Your task to perform on an android device: check battery use Image 0: 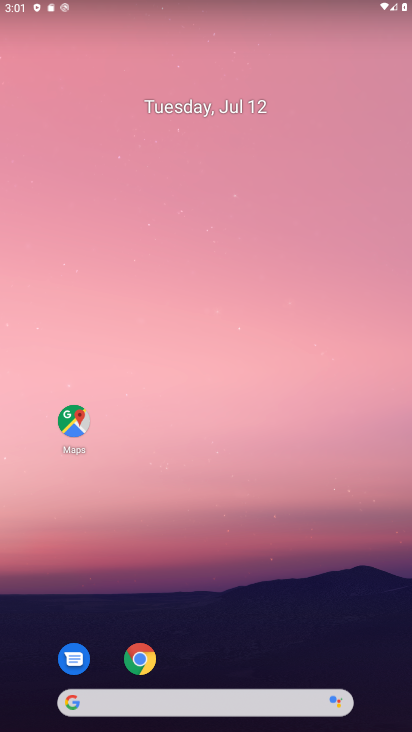
Step 0: drag from (192, 553) to (138, 135)
Your task to perform on an android device: check battery use Image 1: 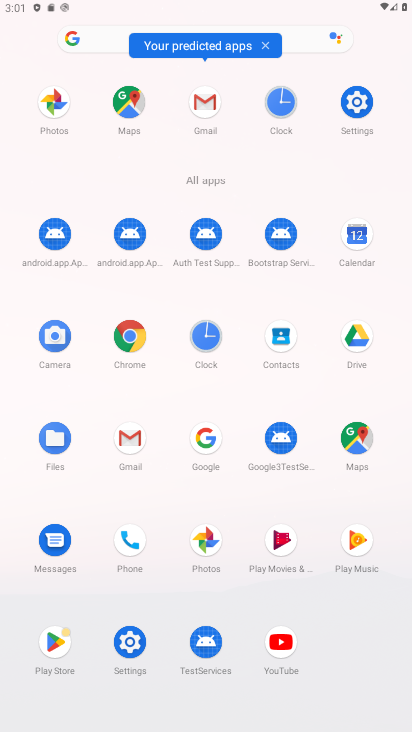
Step 1: click (357, 110)
Your task to perform on an android device: check battery use Image 2: 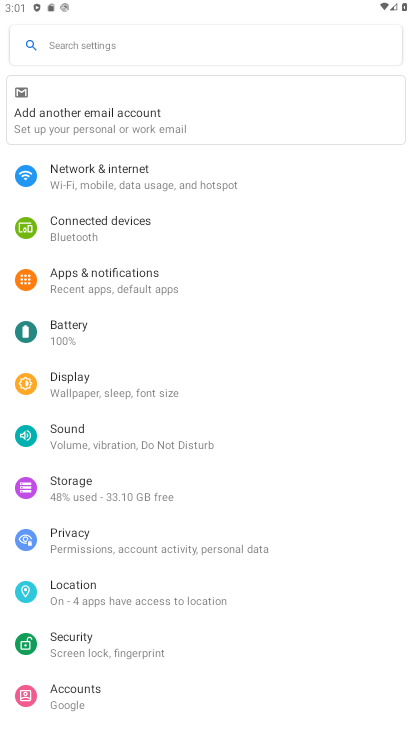
Step 2: click (65, 331)
Your task to perform on an android device: check battery use Image 3: 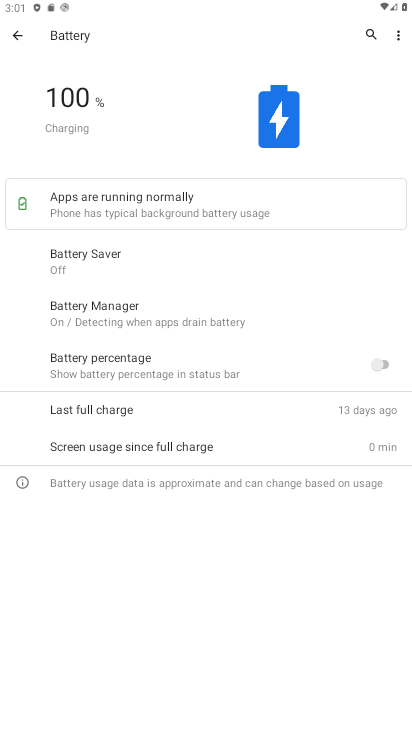
Step 3: task complete